Your task to perform on an android device: toggle wifi Image 0: 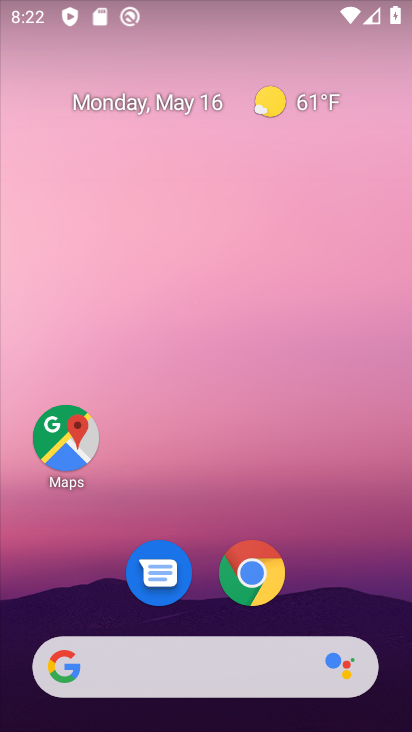
Step 0: drag from (185, 726) to (180, 136)
Your task to perform on an android device: toggle wifi Image 1: 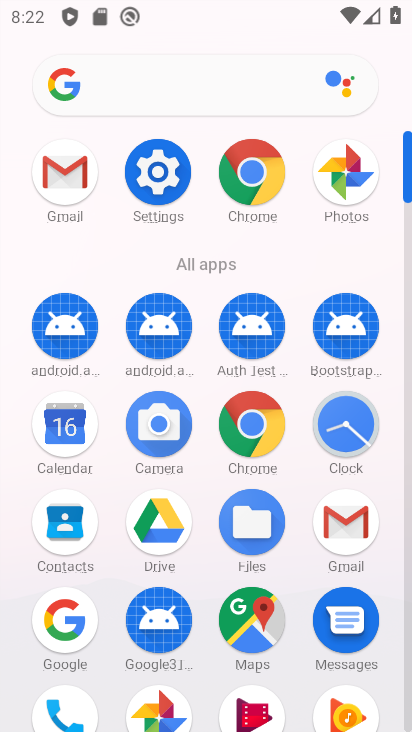
Step 1: click (147, 167)
Your task to perform on an android device: toggle wifi Image 2: 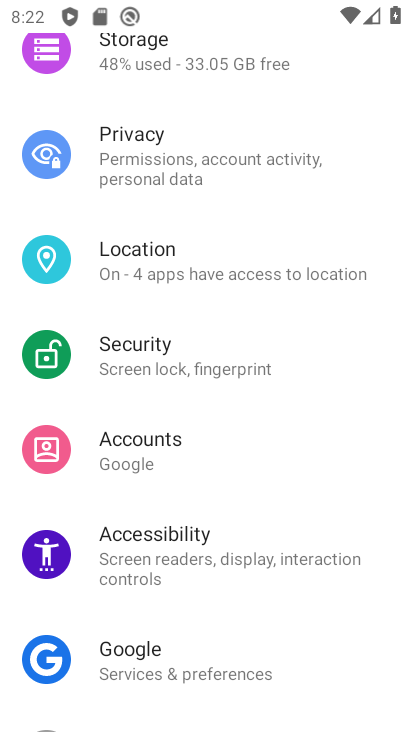
Step 2: drag from (286, 113) to (259, 475)
Your task to perform on an android device: toggle wifi Image 3: 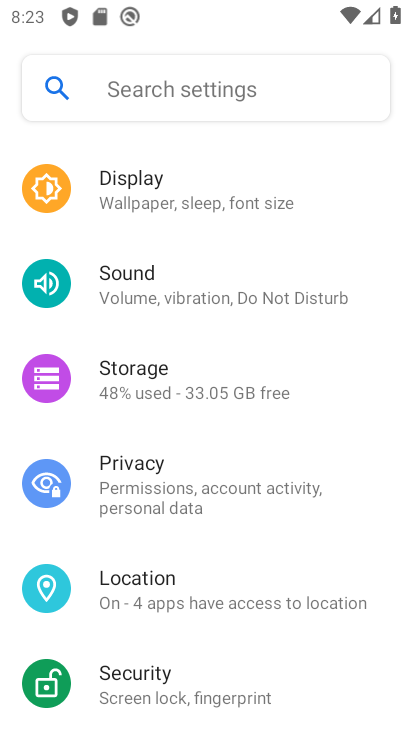
Step 3: drag from (197, 164) to (173, 582)
Your task to perform on an android device: toggle wifi Image 4: 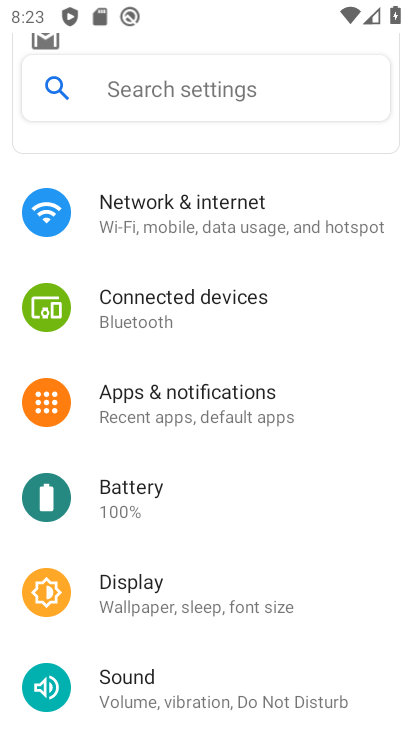
Step 4: drag from (168, 207) to (153, 497)
Your task to perform on an android device: toggle wifi Image 5: 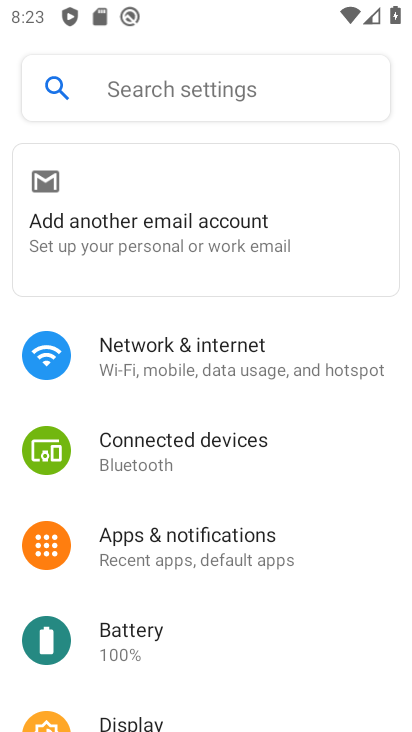
Step 5: click (137, 361)
Your task to perform on an android device: toggle wifi Image 6: 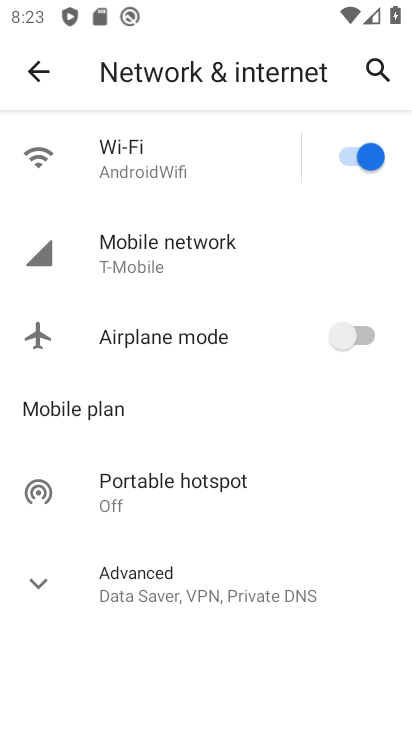
Step 6: click (355, 154)
Your task to perform on an android device: toggle wifi Image 7: 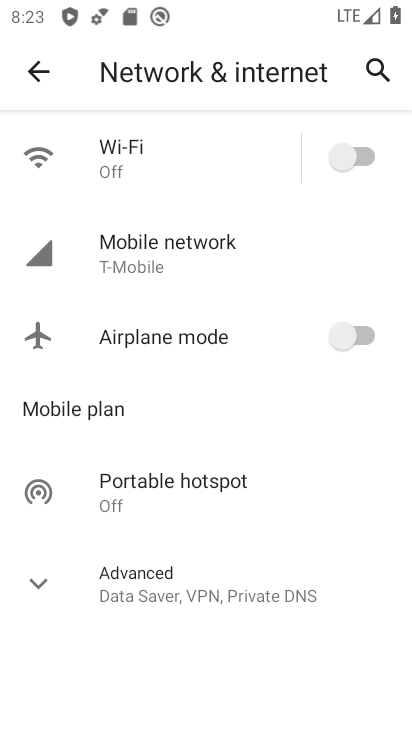
Step 7: task complete